Your task to perform on an android device: Search for seafood restaurants on Google Maps Image 0: 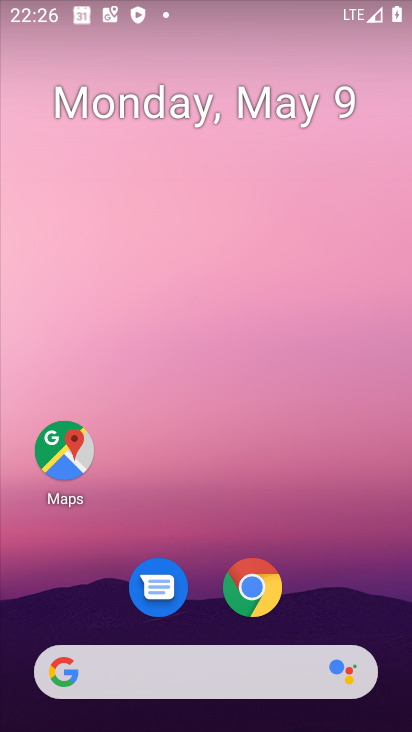
Step 0: click (46, 442)
Your task to perform on an android device: Search for seafood restaurants on Google Maps Image 1: 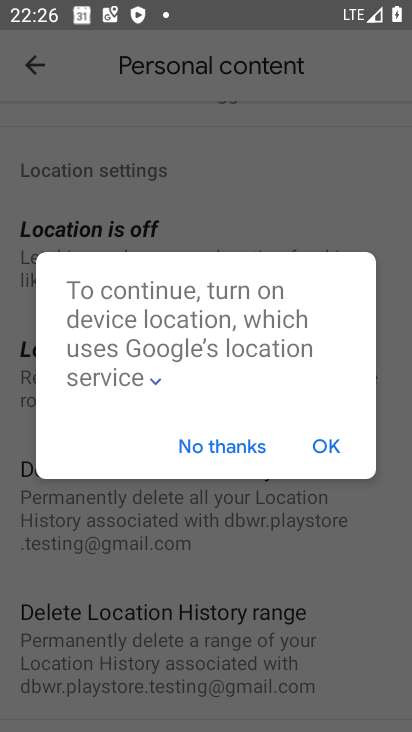
Step 1: press home button
Your task to perform on an android device: Search for seafood restaurants on Google Maps Image 2: 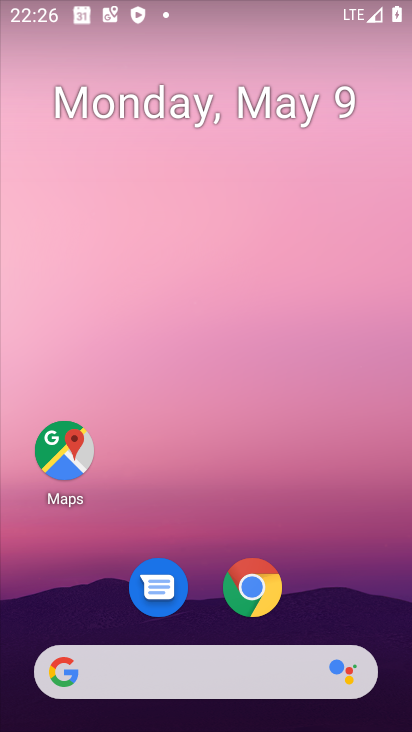
Step 2: click (76, 473)
Your task to perform on an android device: Search for seafood restaurants on Google Maps Image 3: 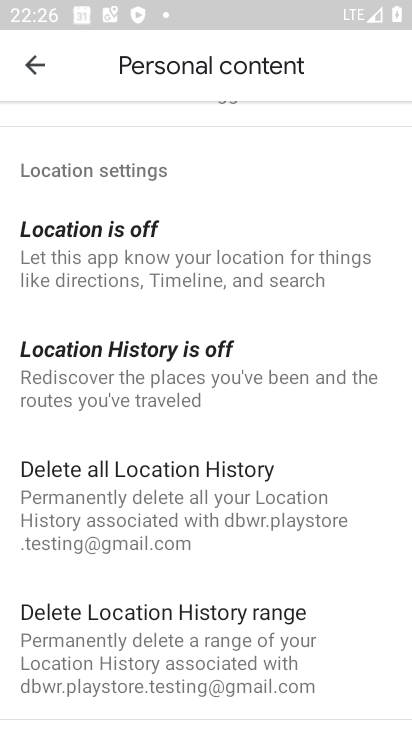
Step 3: click (43, 83)
Your task to perform on an android device: Search for seafood restaurants on Google Maps Image 4: 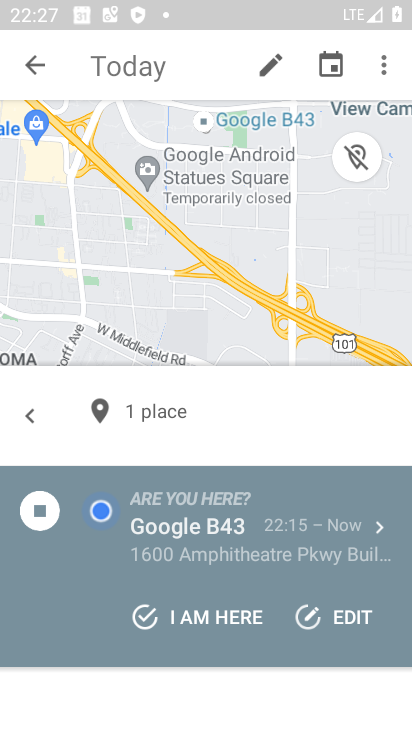
Step 4: click (54, 73)
Your task to perform on an android device: Search for seafood restaurants on Google Maps Image 5: 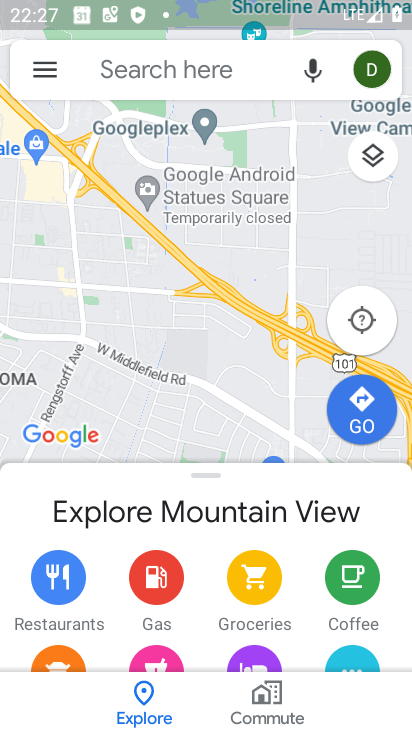
Step 5: click (132, 73)
Your task to perform on an android device: Search for seafood restaurants on Google Maps Image 6: 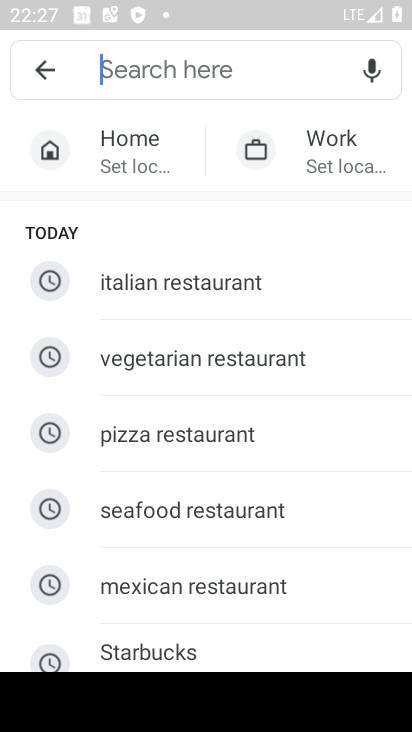
Step 6: click (187, 517)
Your task to perform on an android device: Search for seafood restaurants on Google Maps Image 7: 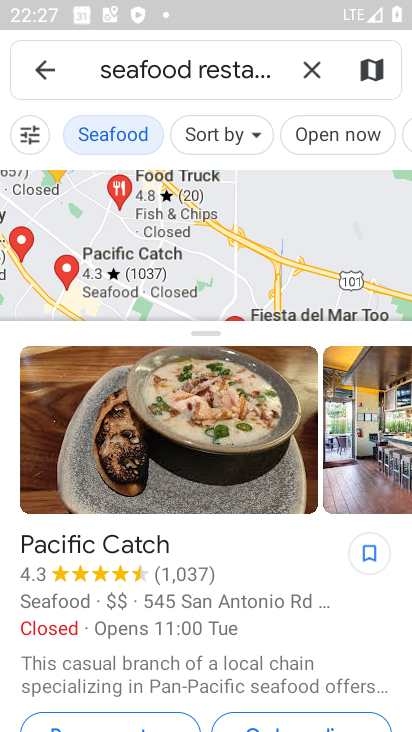
Step 7: task complete